Your task to perform on an android device: Clear the cart on walmart. Search for "logitech g910" on walmart, select the first entry, add it to the cart, then select checkout. Image 0: 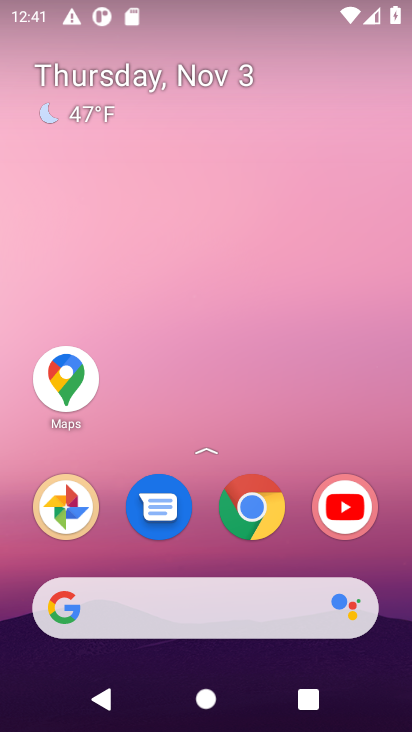
Step 0: click (205, 599)
Your task to perform on an android device: Clear the cart on walmart. Search for "logitech g910" on walmart, select the first entry, add it to the cart, then select checkout. Image 1: 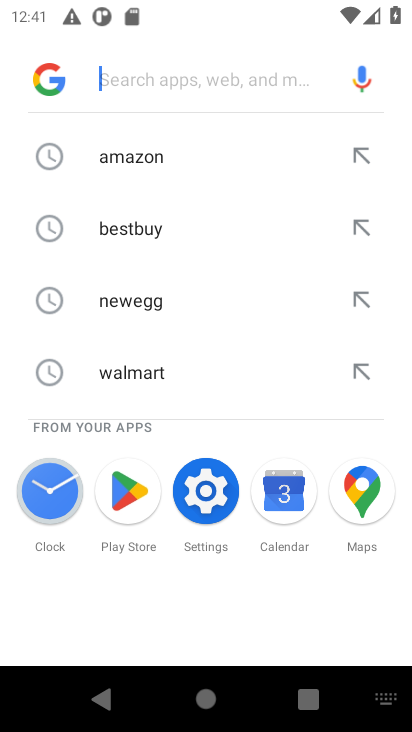
Step 1: click (169, 350)
Your task to perform on an android device: Clear the cart on walmart. Search for "logitech g910" on walmart, select the first entry, add it to the cart, then select checkout. Image 2: 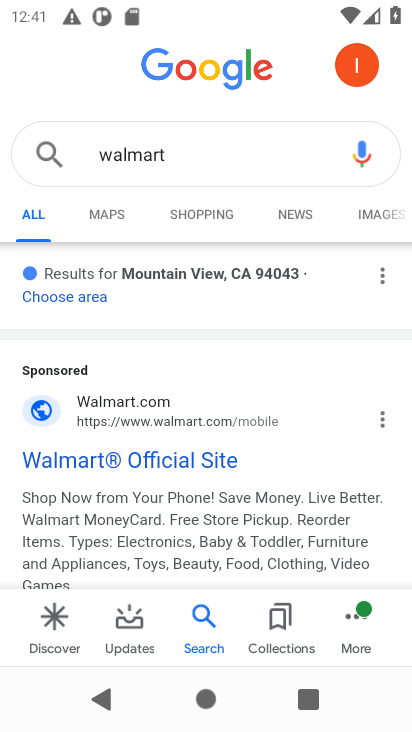
Step 2: click (135, 476)
Your task to perform on an android device: Clear the cart on walmart. Search for "logitech g910" on walmart, select the first entry, add it to the cart, then select checkout. Image 3: 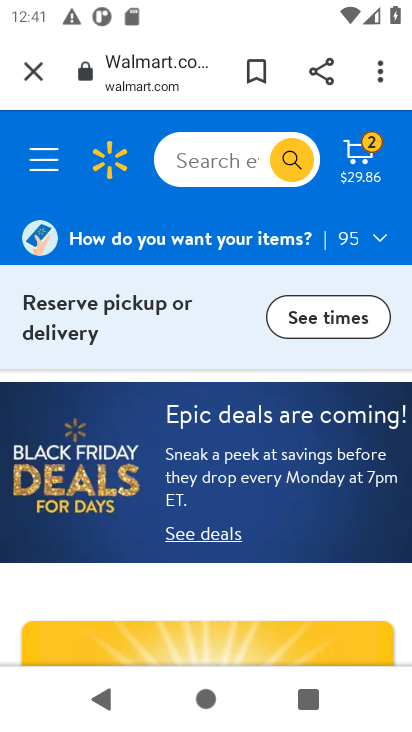
Step 3: click (233, 167)
Your task to perform on an android device: Clear the cart on walmart. Search for "logitech g910" on walmart, select the first entry, add it to the cart, then select checkout. Image 4: 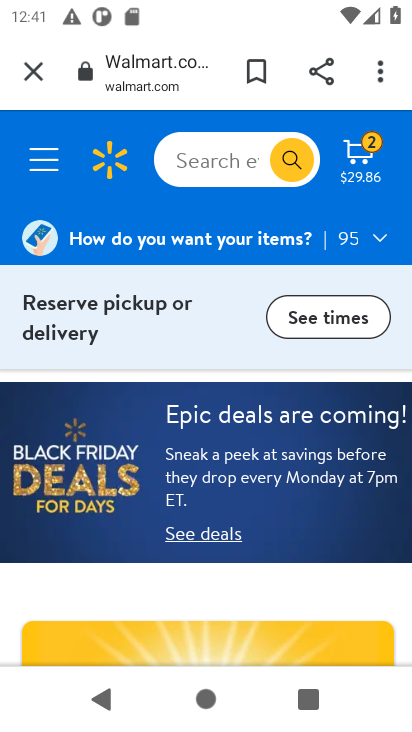
Step 4: click (233, 167)
Your task to perform on an android device: Clear the cart on walmart. Search for "logitech g910" on walmart, select the first entry, add it to the cart, then select checkout. Image 5: 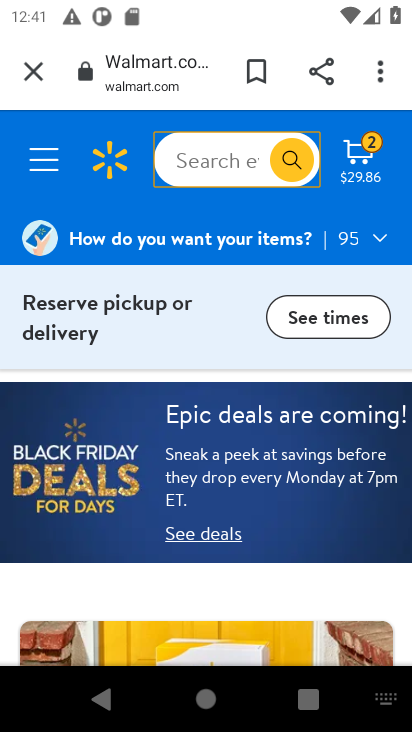
Step 5: type "logitech"
Your task to perform on an android device: Clear the cart on walmart. Search for "logitech g910" on walmart, select the first entry, add it to the cart, then select checkout. Image 6: 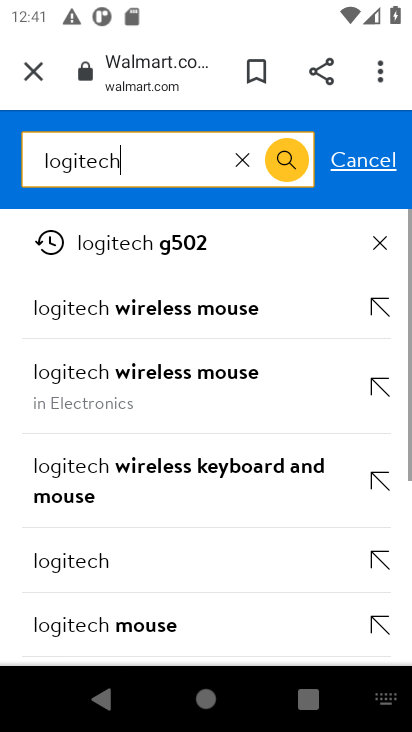
Step 6: click (210, 252)
Your task to perform on an android device: Clear the cart on walmart. Search for "logitech g910" on walmart, select the first entry, add it to the cart, then select checkout. Image 7: 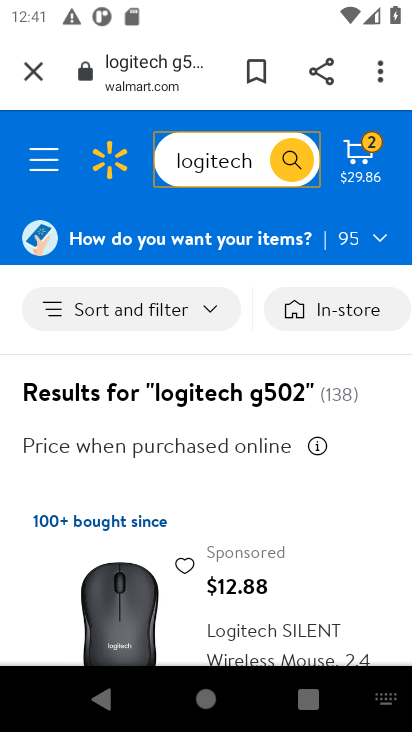
Step 7: click (192, 629)
Your task to perform on an android device: Clear the cart on walmart. Search for "logitech g910" on walmart, select the first entry, add it to the cart, then select checkout. Image 8: 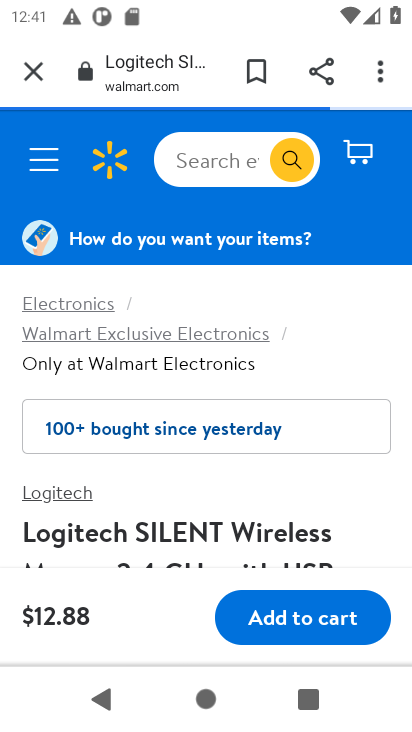
Step 8: click (298, 615)
Your task to perform on an android device: Clear the cart on walmart. Search for "logitech g910" on walmart, select the first entry, add it to the cart, then select checkout. Image 9: 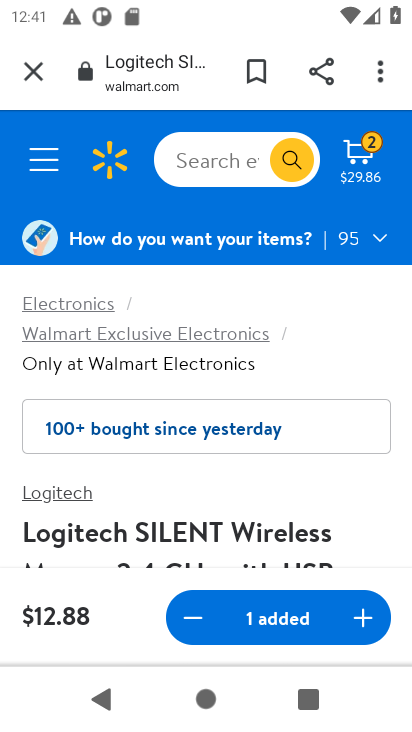
Step 9: task complete